Your task to perform on an android device: Open Android settings Image 0: 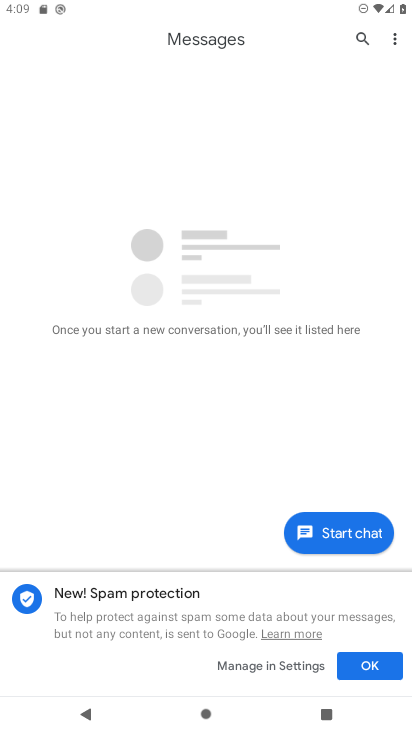
Step 0: press home button
Your task to perform on an android device: Open Android settings Image 1: 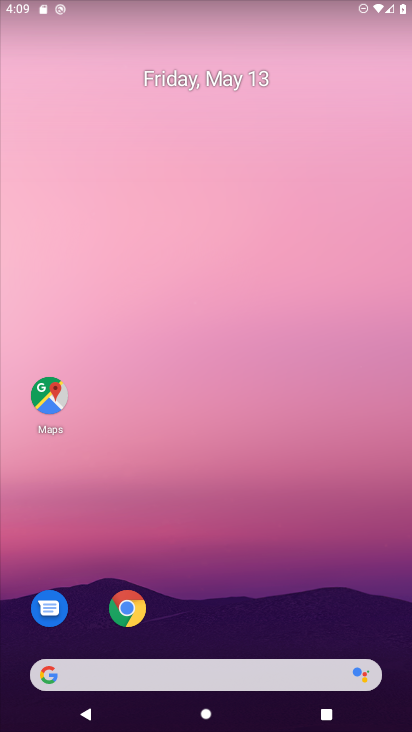
Step 1: drag from (290, 605) to (276, 11)
Your task to perform on an android device: Open Android settings Image 2: 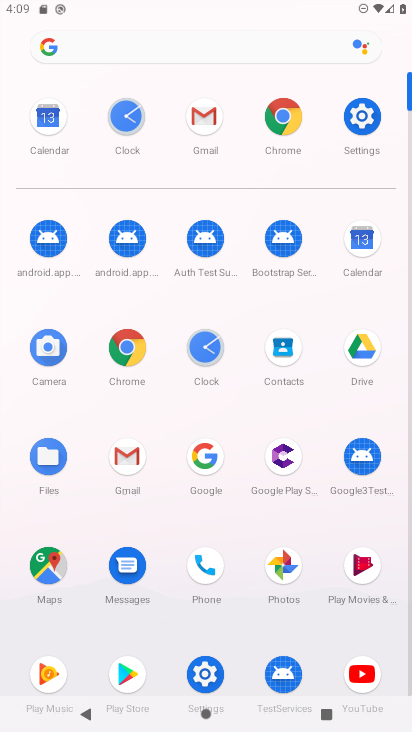
Step 2: click (356, 131)
Your task to perform on an android device: Open Android settings Image 3: 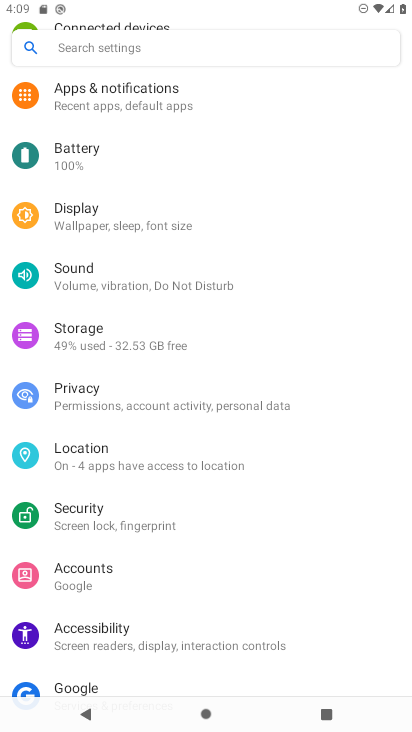
Step 3: drag from (159, 632) to (197, 96)
Your task to perform on an android device: Open Android settings Image 4: 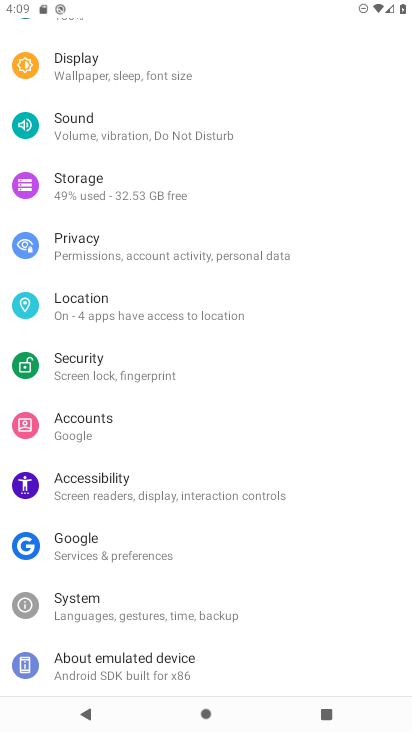
Step 4: click (175, 665)
Your task to perform on an android device: Open Android settings Image 5: 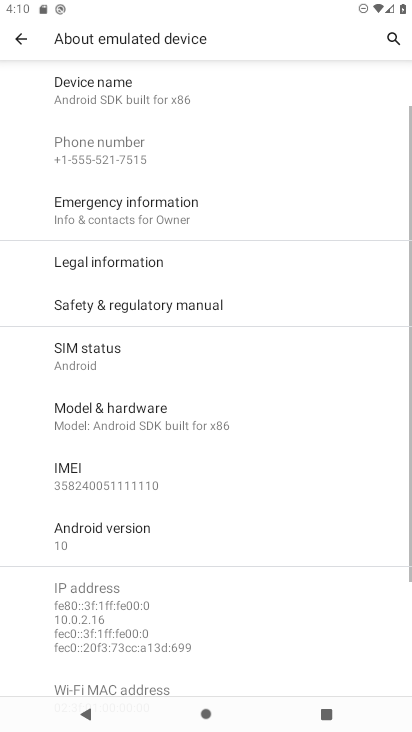
Step 5: click (159, 531)
Your task to perform on an android device: Open Android settings Image 6: 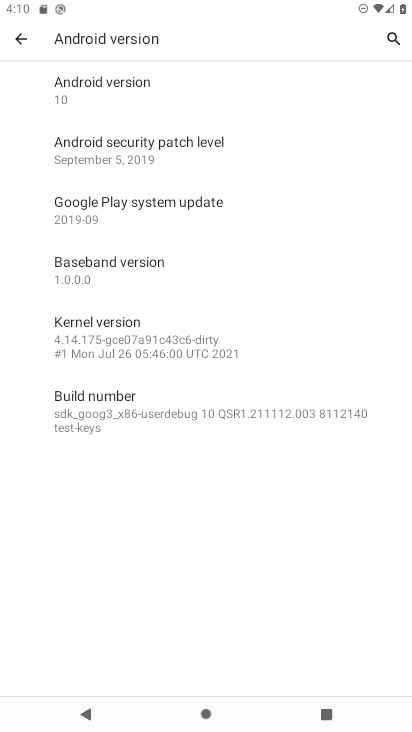
Step 6: task complete